Your task to perform on an android device: change the clock display to digital Image 0: 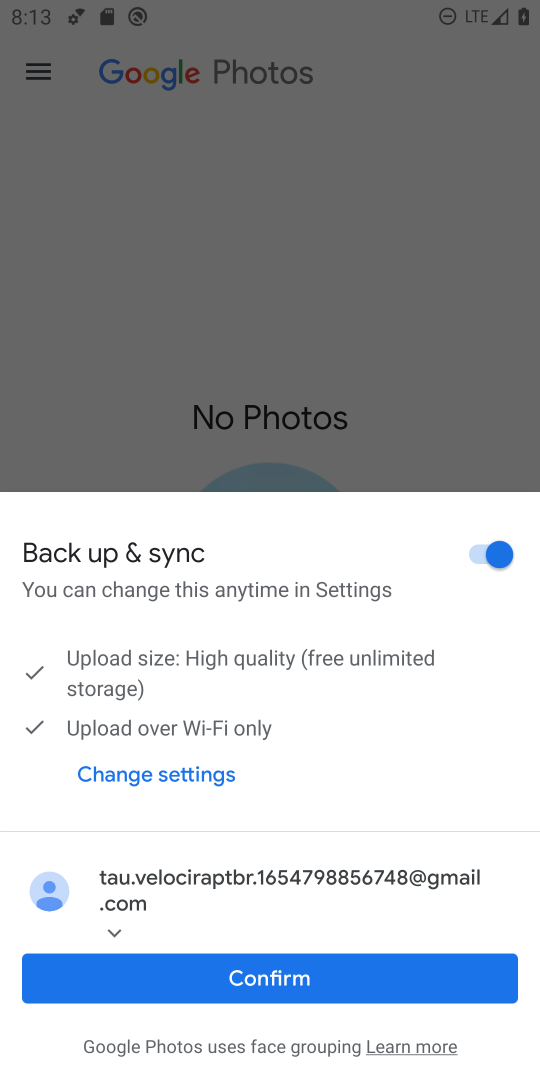
Step 0: press home button
Your task to perform on an android device: change the clock display to digital Image 1: 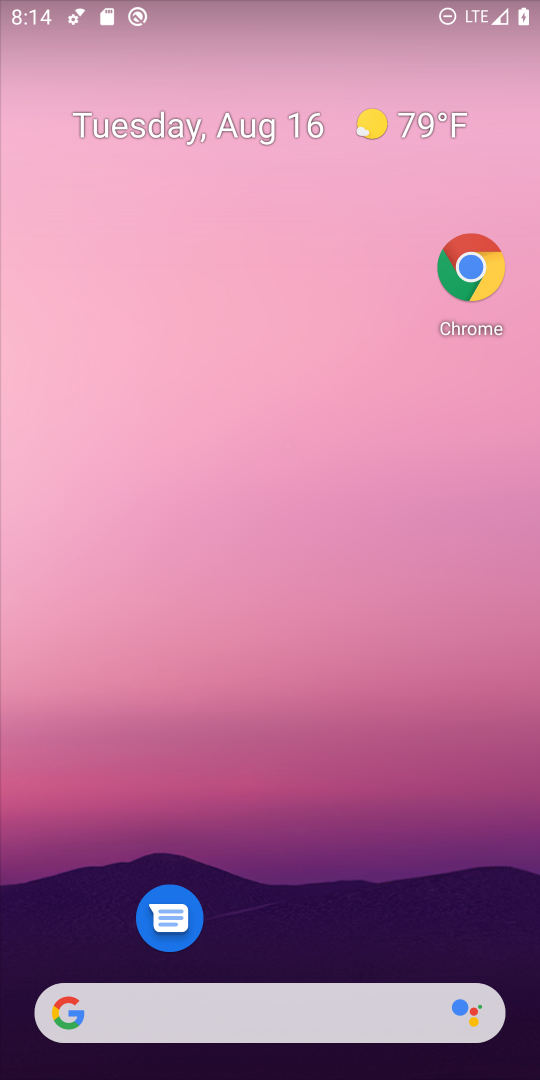
Step 1: drag from (306, 999) to (277, 440)
Your task to perform on an android device: change the clock display to digital Image 2: 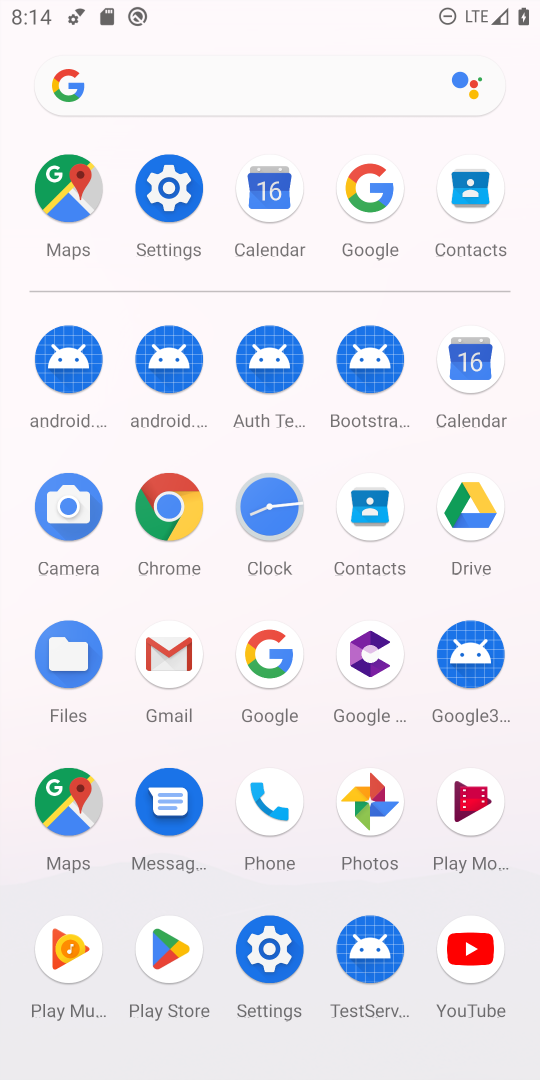
Step 2: click (277, 541)
Your task to perform on an android device: change the clock display to digital Image 3: 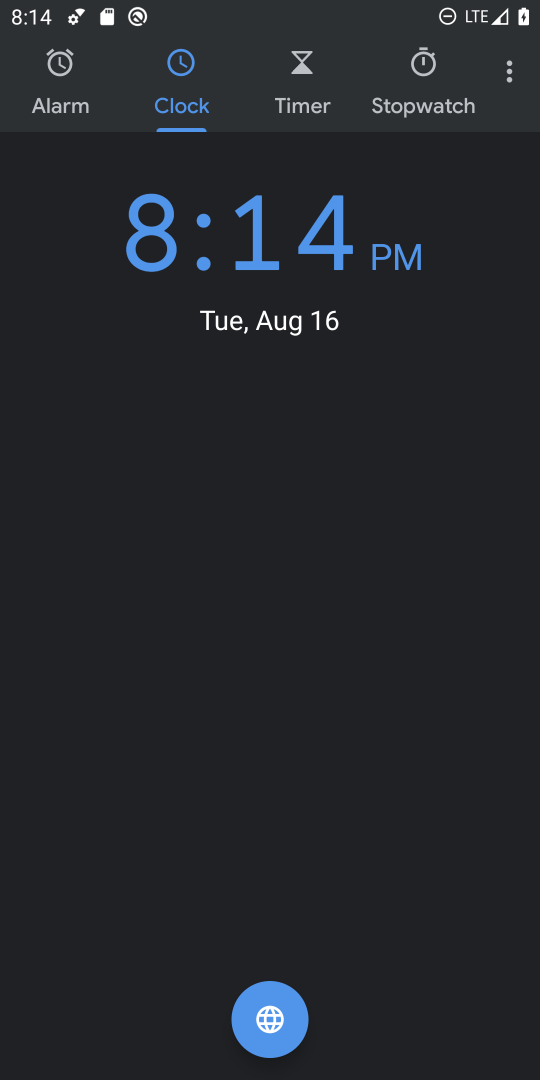
Step 3: click (505, 67)
Your task to perform on an android device: change the clock display to digital Image 4: 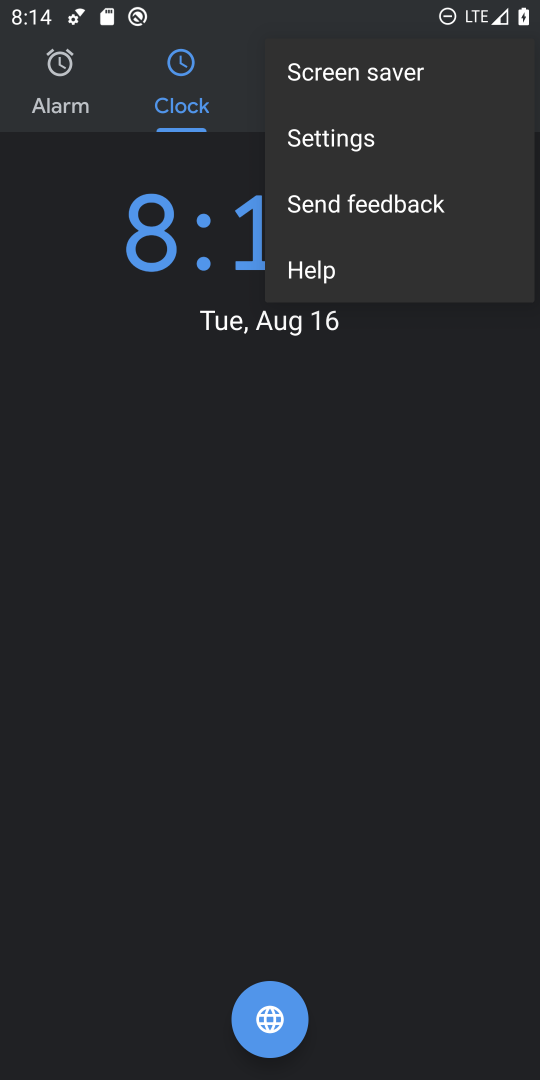
Step 4: click (382, 141)
Your task to perform on an android device: change the clock display to digital Image 5: 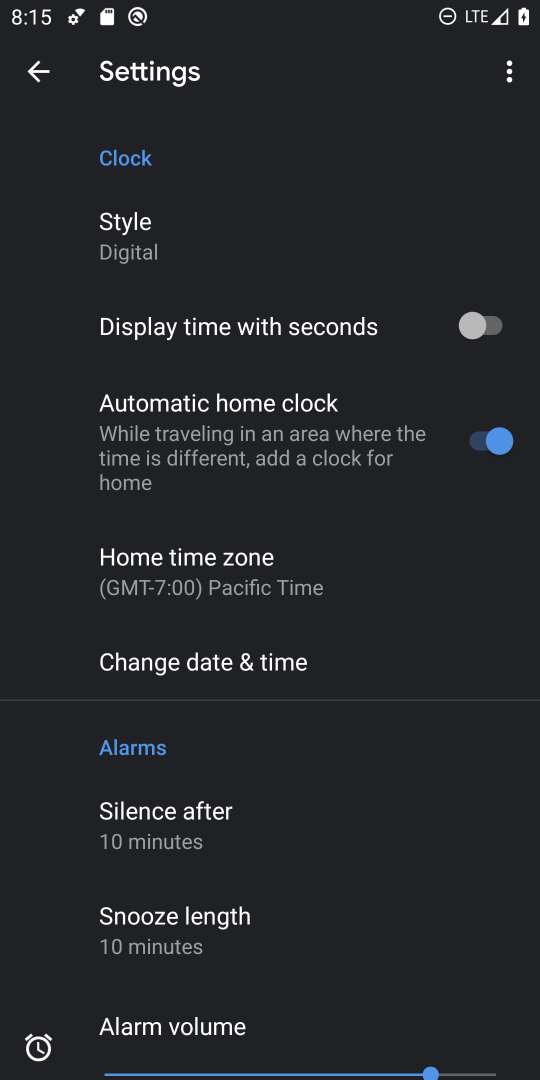
Step 5: click (196, 226)
Your task to perform on an android device: change the clock display to digital Image 6: 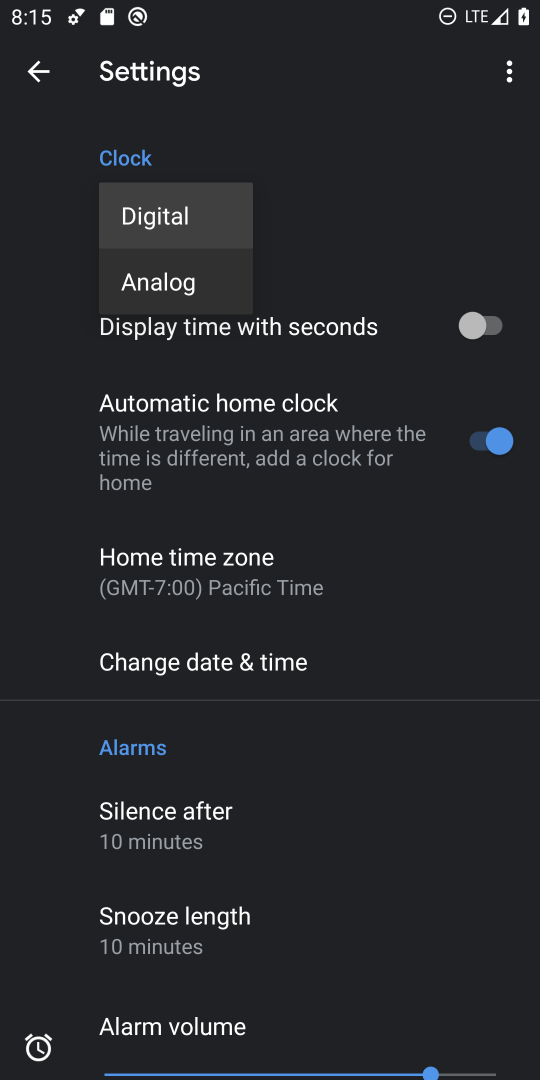
Step 6: task complete